Your task to perform on an android device: Show me the alarms in the clock app Image 0: 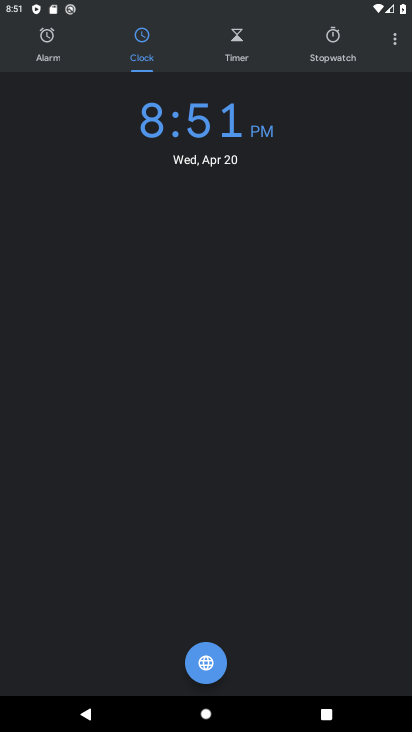
Step 0: click (52, 50)
Your task to perform on an android device: Show me the alarms in the clock app Image 1: 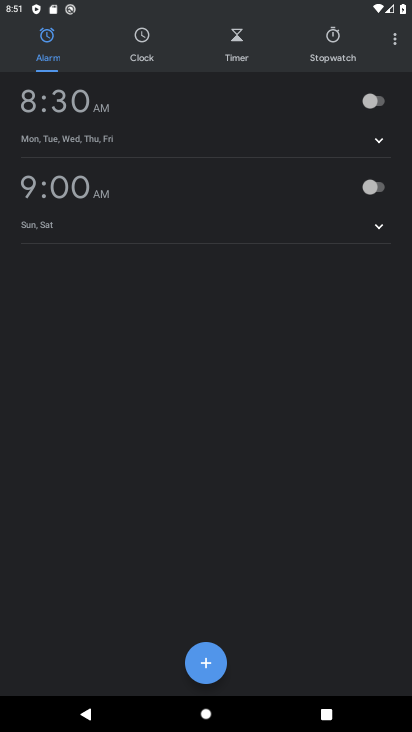
Step 1: click (402, 106)
Your task to perform on an android device: Show me the alarms in the clock app Image 2: 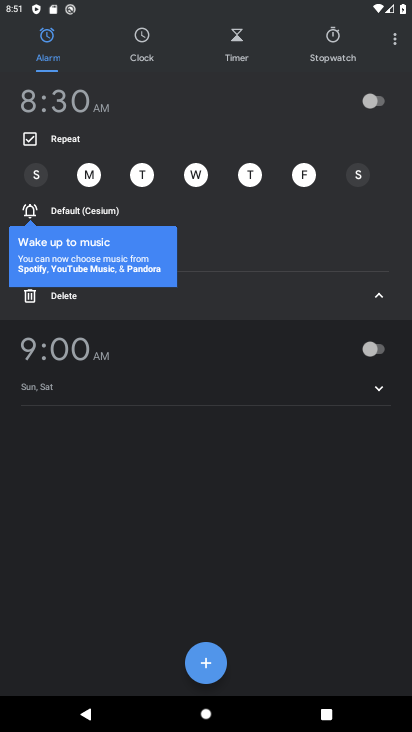
Step 2: task complete